Your task to perform on an android device: When is my next meeting? Image 0: 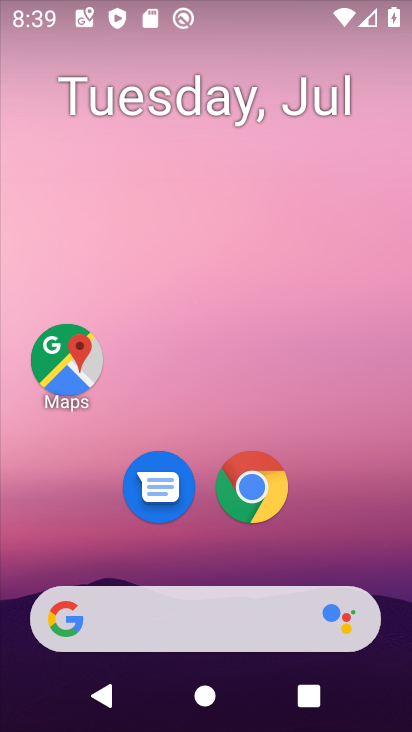
Step 0: drag from (63, 466) to (190, 13)
Your task to perform on an android device: When is my next meeting? Image 1: 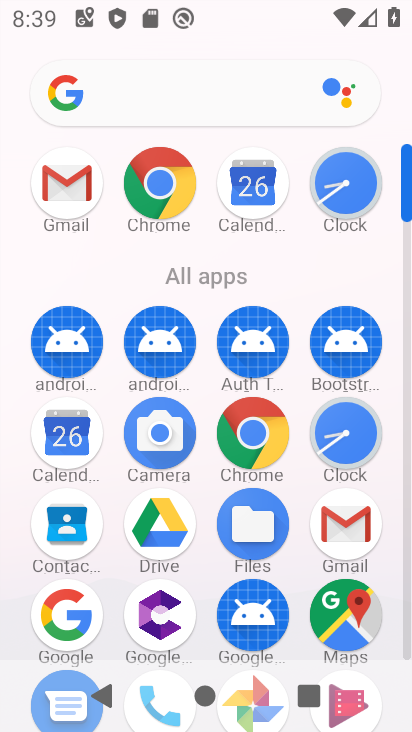
Step 1: click (75, 452)
Your task to perform on an android device: When is my next meeting? Image 2: 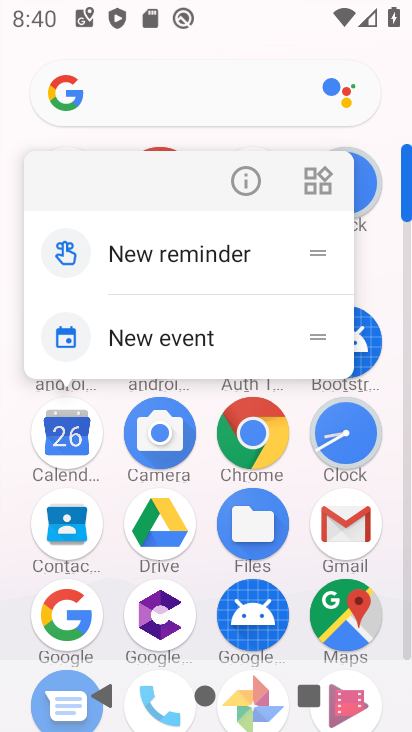
Step 2: click (64, 435)
Your task to perform on an android device: When is my next meeting? Image 3: 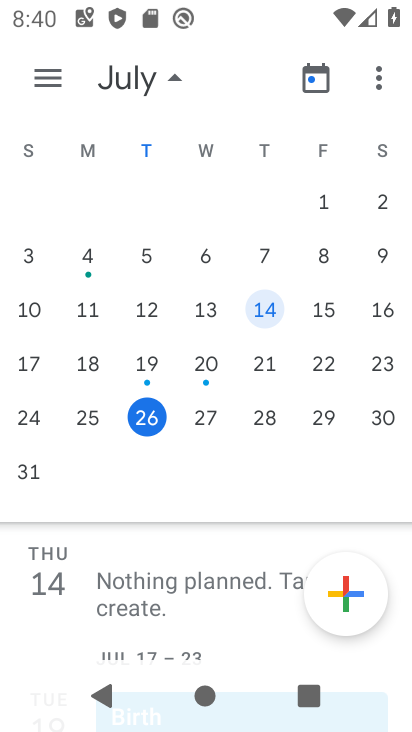
Step 3: click (146, 411)
Your task to perform on an android device: When is my next meeting? Image 4: 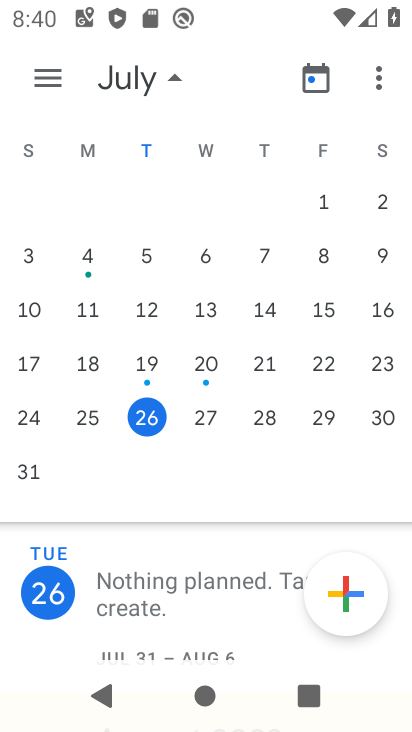
Step 4: task complete